Your task to perform on an android device: Open Google Chrome Image 0: 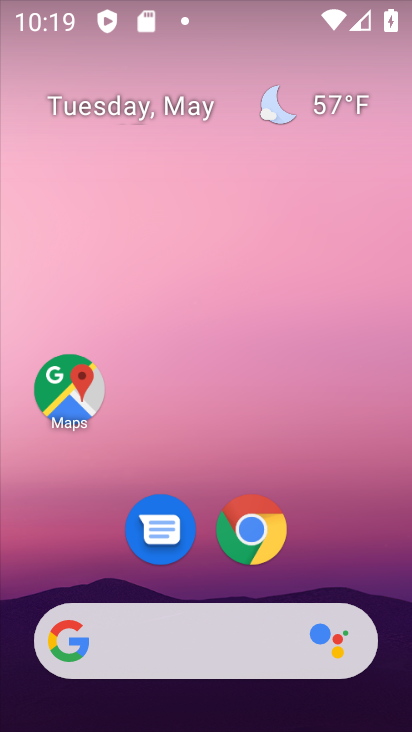
Step 0: click (249, 527)
Your task to perform on an android device: Open Google Chrome Image 1: 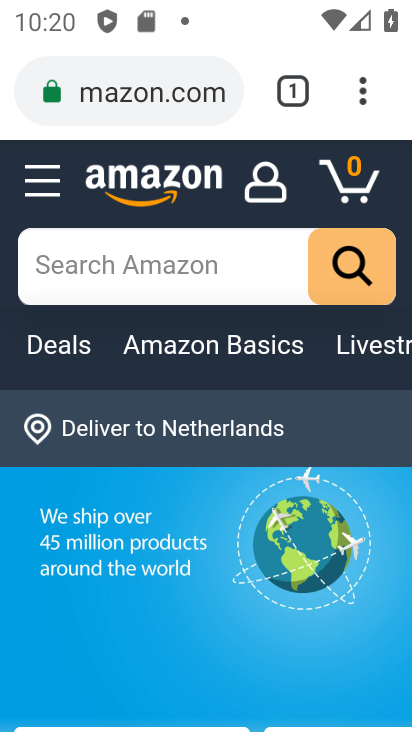
Step 1: task complete